Your task to perform on an android device: Open Chrome and go to settings Image 0: 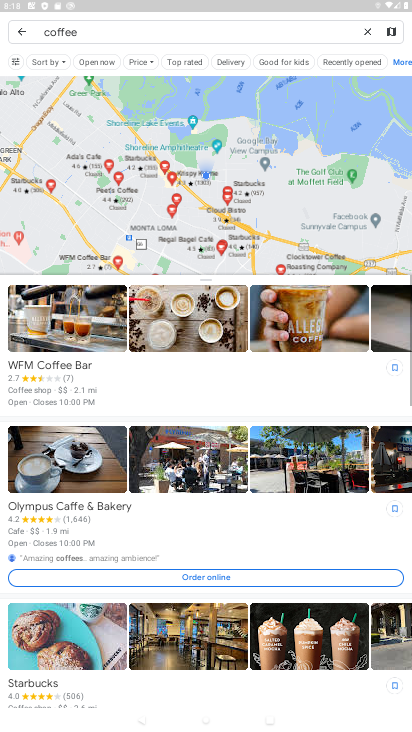
Step 0: press home button
Your task to perform on an android device: Open Chrome and go to settings Image 1: 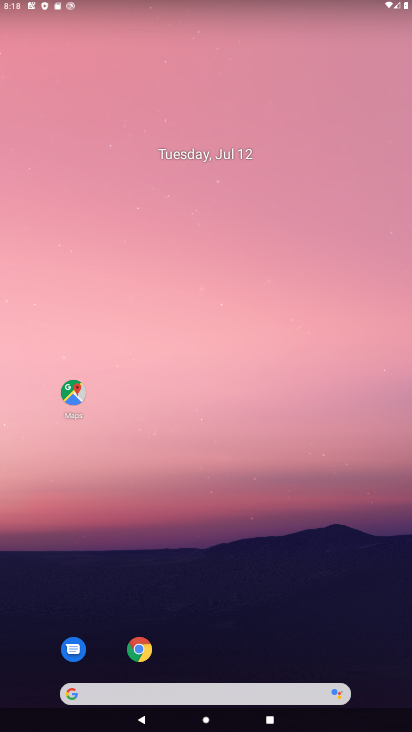
Step 1: click (141, 653)
Your task to perform on an android device: Open Chrome and go to settings Image 2: 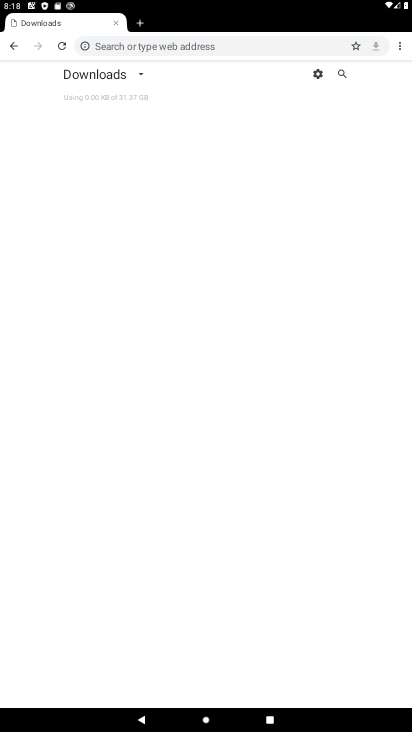
Step 2: click (399, 42)
Your task to perform on an android device: Open Chrome and go to settings Image 3: 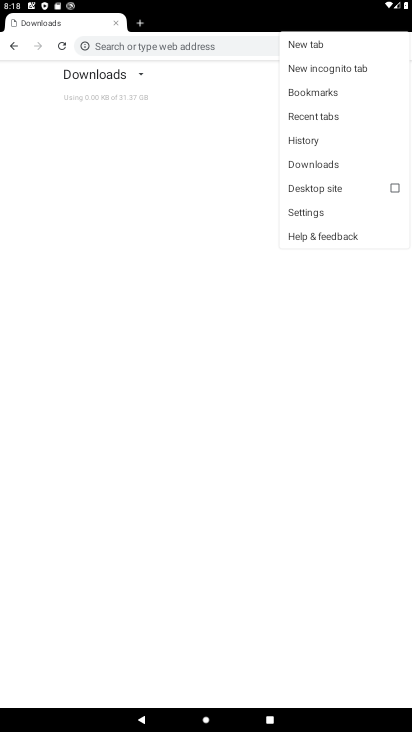
Step 3: click (301, 209)
Your task to perform on an android device: Open Chrome and go to settings Image 4: 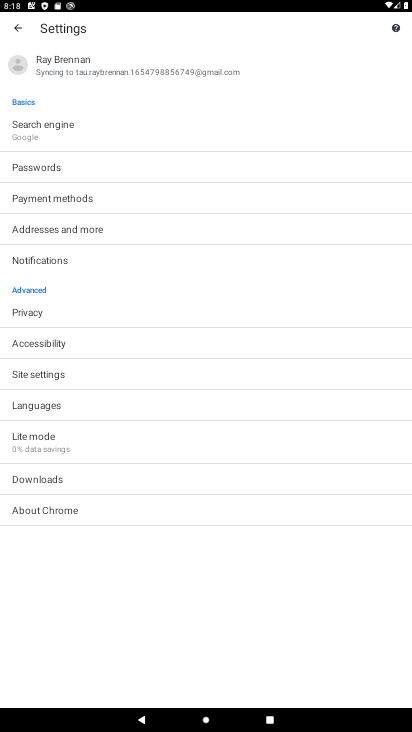
Step 4: task complete